Your task to perform on an android device: open device folders in google photos Image 0: 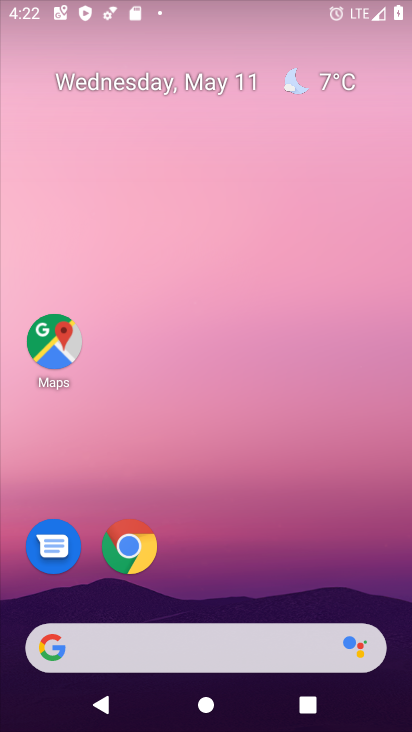
Step 0: drag from (298, 621) to (369, 3)
Your task to perform on an android device: open device folders in google photos Image 1: 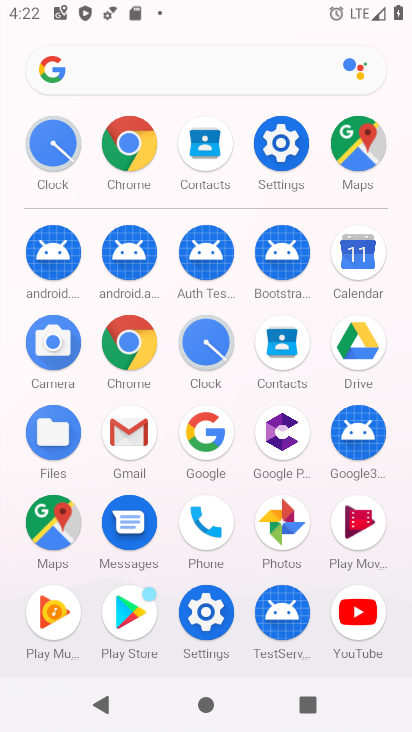
Step 1: click (275, 523)
Your task to perform on an android device: open device folders in google photos Image 2: 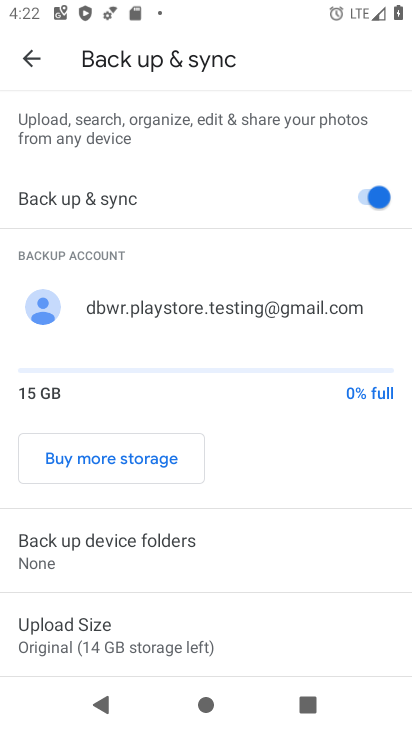
Step 2: press back button
Your task to perform on an android device: open device folders in google photos Image 3: 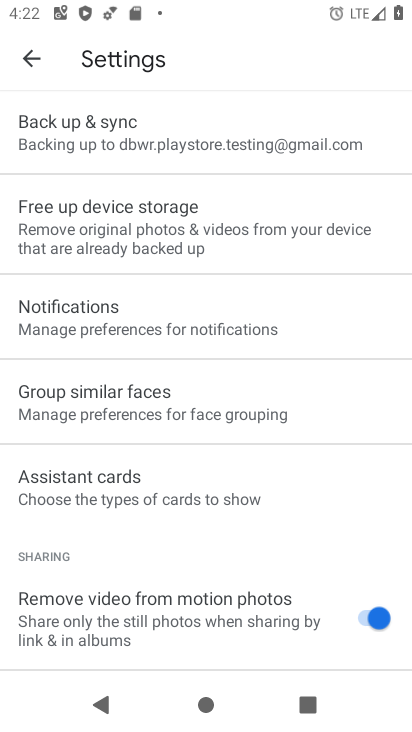
Step 3: press back button
Your task to perform on an android device: open device folders in google photos Image 4: 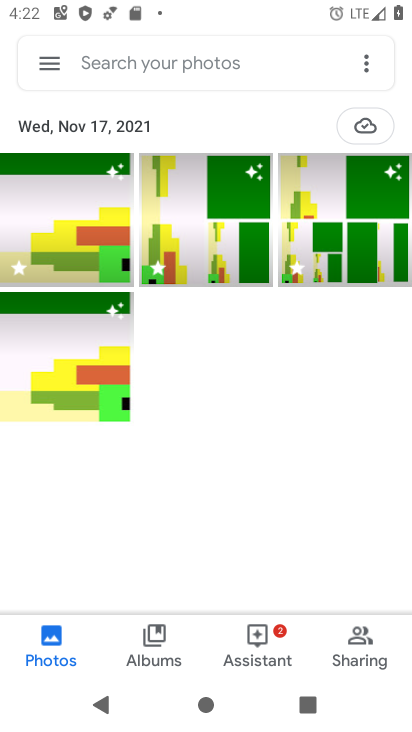
Step 4: click (38, 71)
Your task to perform on an android device: open device folders in google photos Image 5: 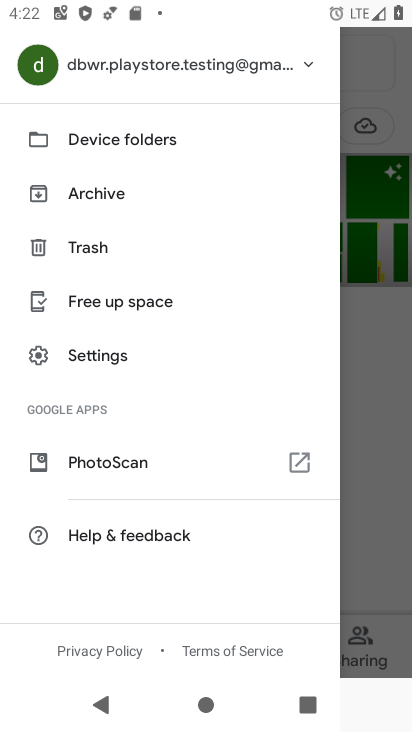
Step 5: click (80, 134)
Your task to perform on an android device: open device folders in google photos Image 6: 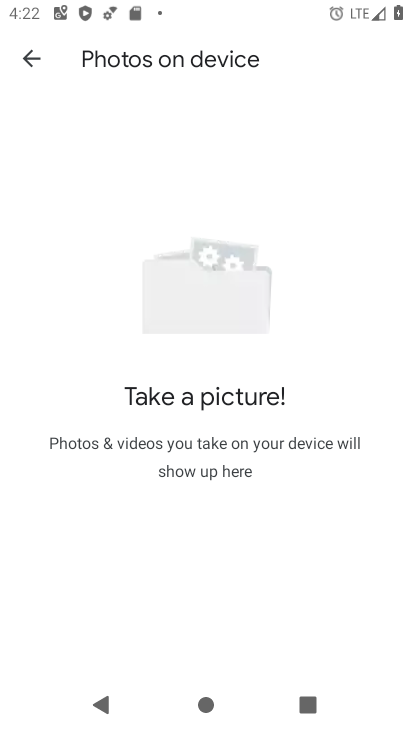
Step 6: task complete